Your task to perform on an android device: toggle notification dots Image 0: 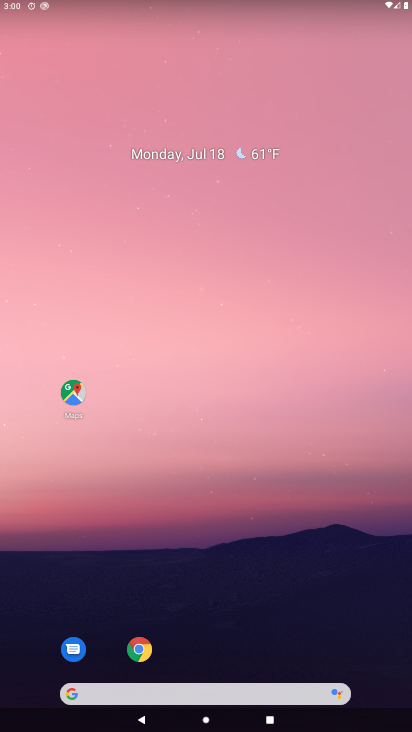
Step 0: drag from (48, 656) to (232, 168)
Your task to perform on an android device: toggle notification dots Image 1: 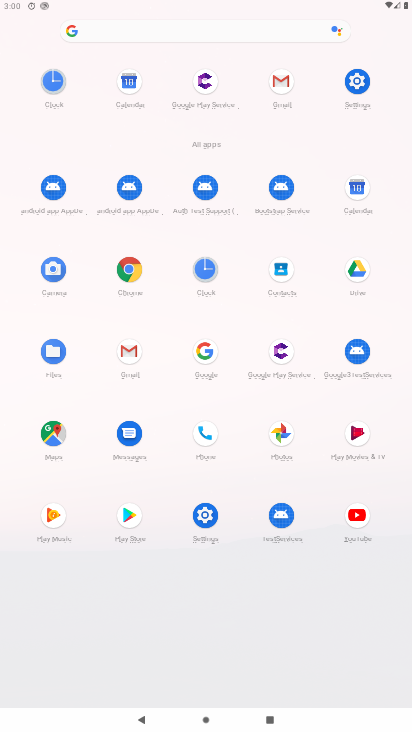
Step 1: click (198, 518)
Your task to perform on an android device: toggle notification dots Image 2: 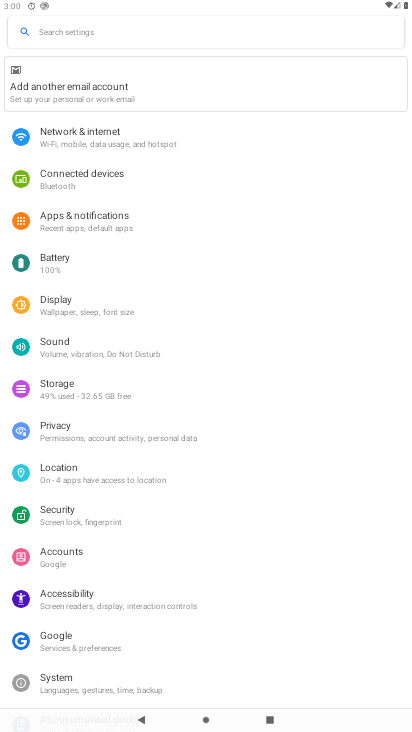
Step 2: click (78, 215)
Your task to perform on an android device: toggle notification dots Image 3: 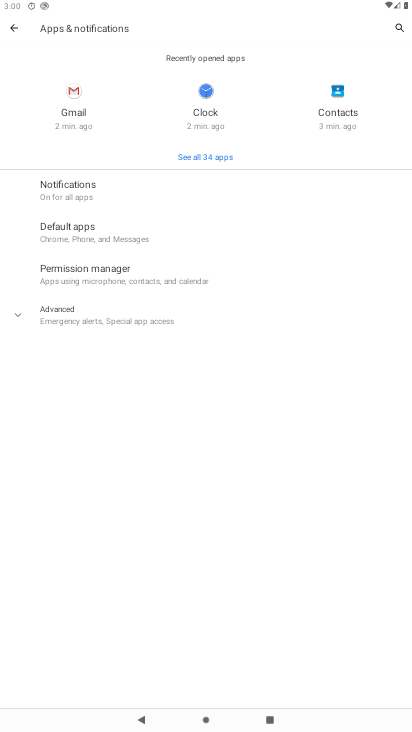
Step 3: click (87, 183)
Your task to perform on an android device: toggle notification dots Image 4: 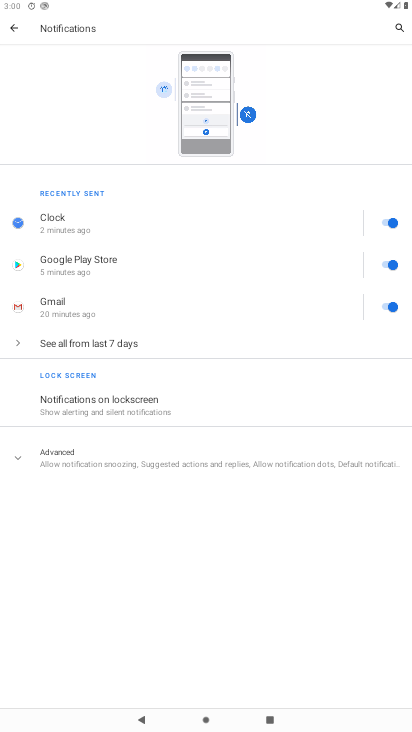
Step 4: click (73, 435)
Your task to perform on an android device: toggle notification dots Image 5: 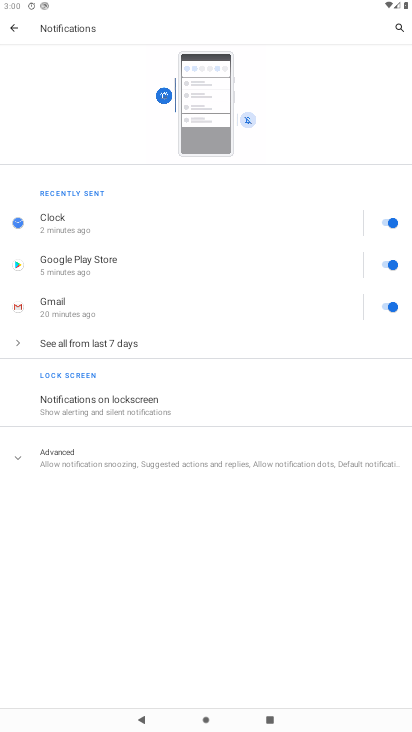
Step 5: click (73, 453)
Your task to perform on an android device: toggle notification dots Image 6: 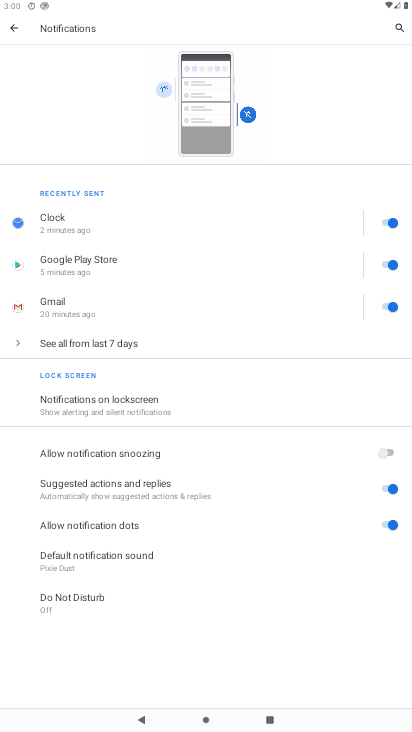
Step 6: task complete